Your task to perform on an android device: turn on airplane mode Image 0: 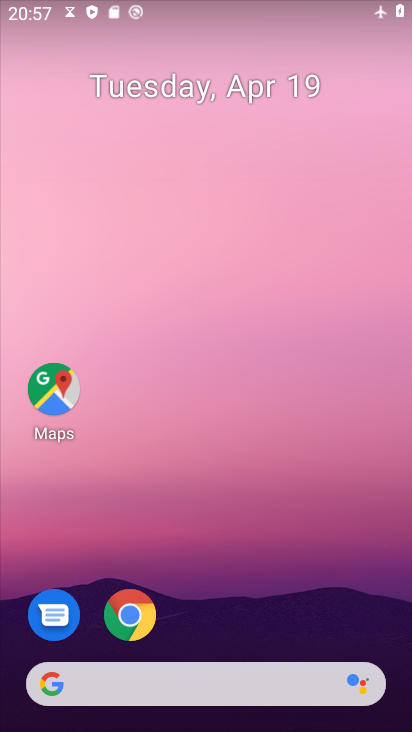
Step 0: drag from (338, 616) to (301, 18)
Your task to perform on an android device: turn on airplane mode Image 1: 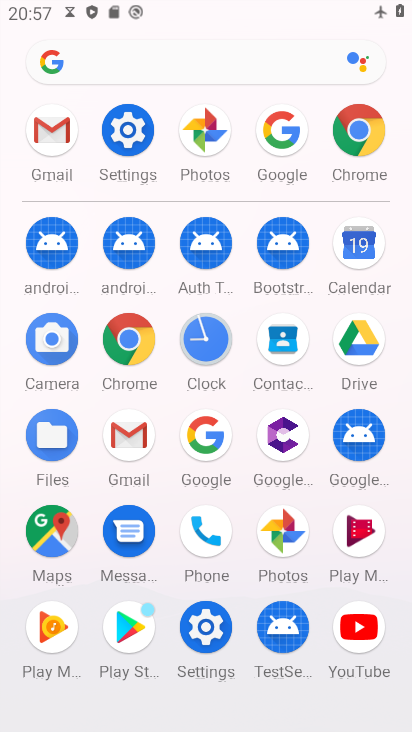
Step 1: drag from (3, 571) to (6, 232)
Your task to perform on an android device: turn on airplane mode Image 2: 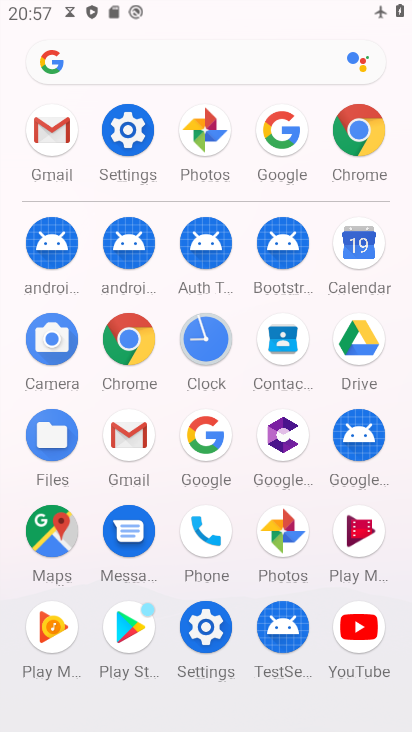
Step 2: click (207, 624)
Your task to perform on an android device: turn on airplane mode Image 3: 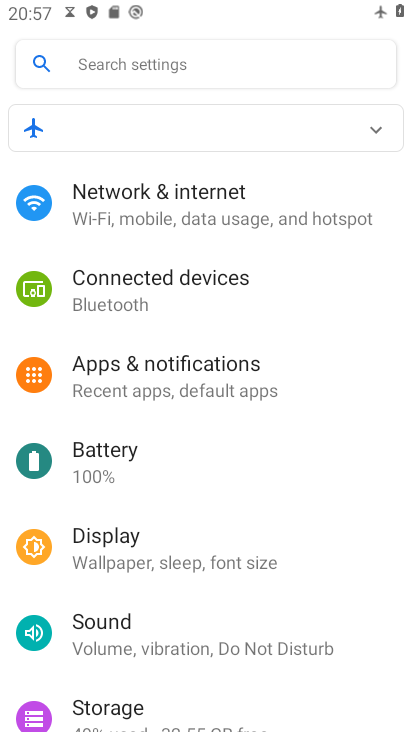
Step 3: click (178, 198)
Your task to perform on an android device: turn on airplane mode Image 4: 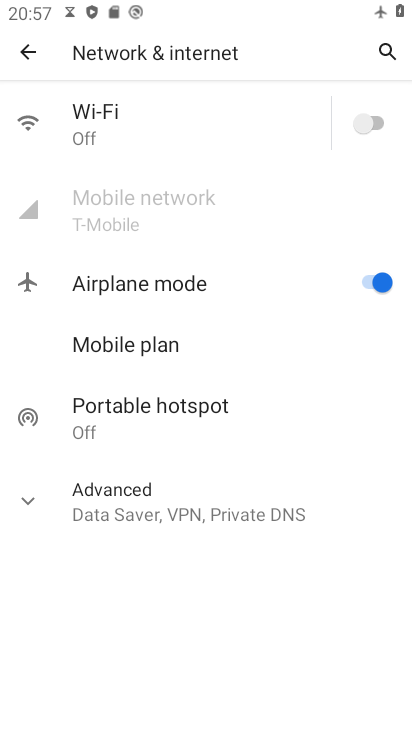
Step 4: task complete